Your task to perform on an android device: Open my contact list Image 0: 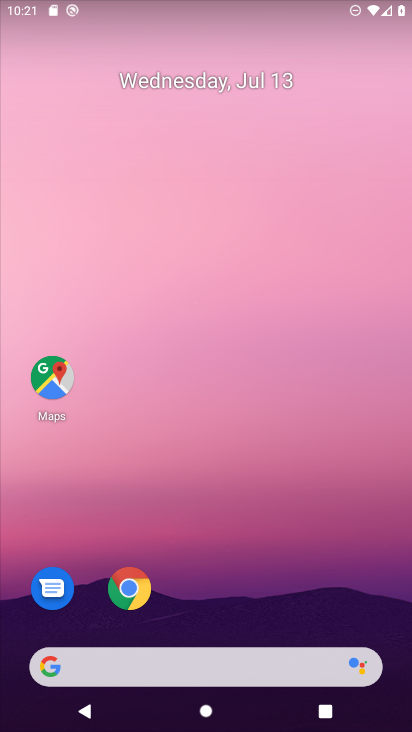
Step 0: drag from (199, 619) to (196, 63)
Your task to perform on an android device: Open my contact list Image 1: 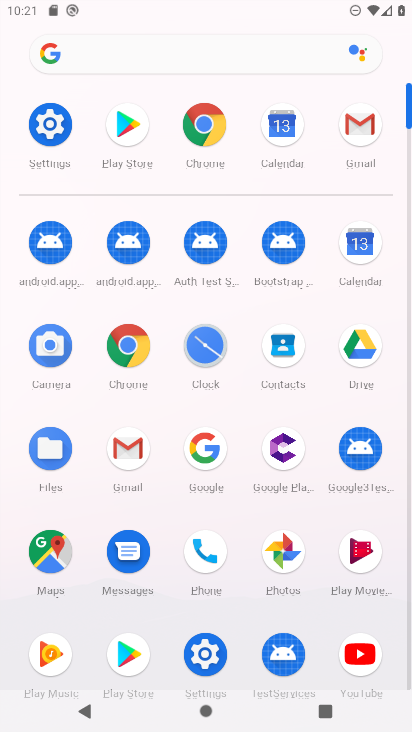
Step 1: click (211, 545)
Your task to perform on an android device: Open my contact list Image 2: 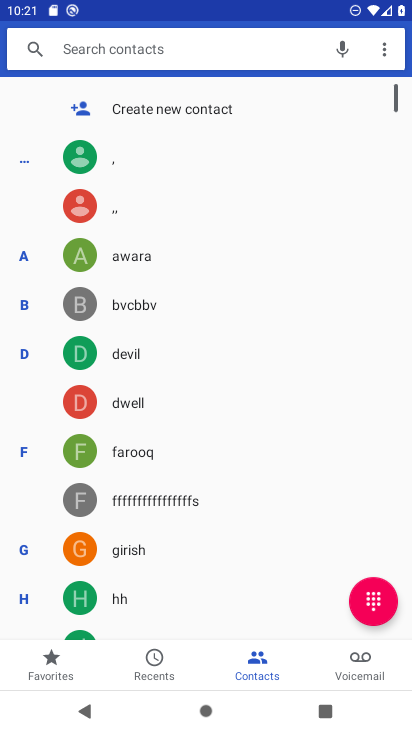
Step 2: click (260, 665)
Your task to perform on an android device: Open my contact list Image 3: 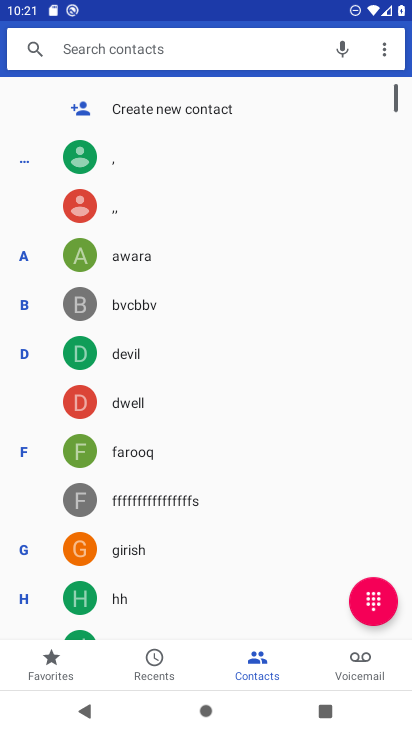
Step 3: task complete